Your task to perform on an android device: Open Google Chrome Image 0: 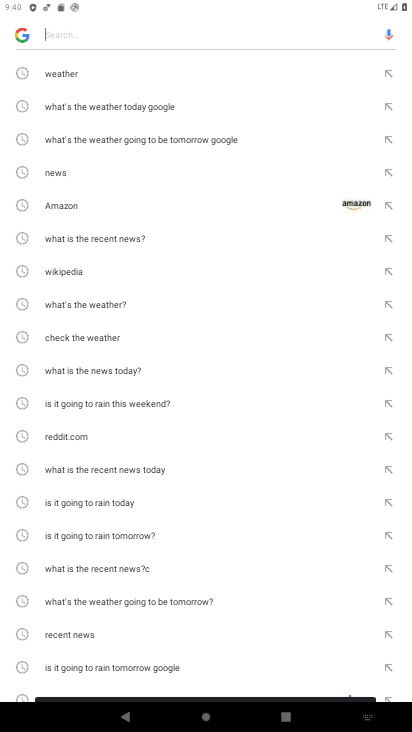
Step 0: press home button
Your task to perform on an android device: Open Google Chrome Image 1: 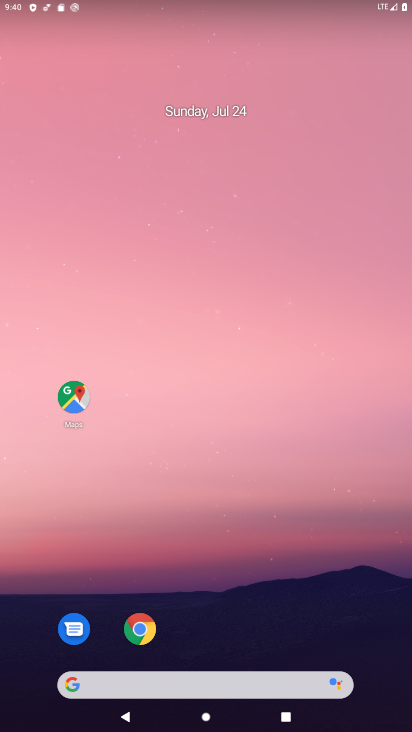
Step 1: click (146, 628)
Your task to perform on an android device: Open Google Chrome Image 2: 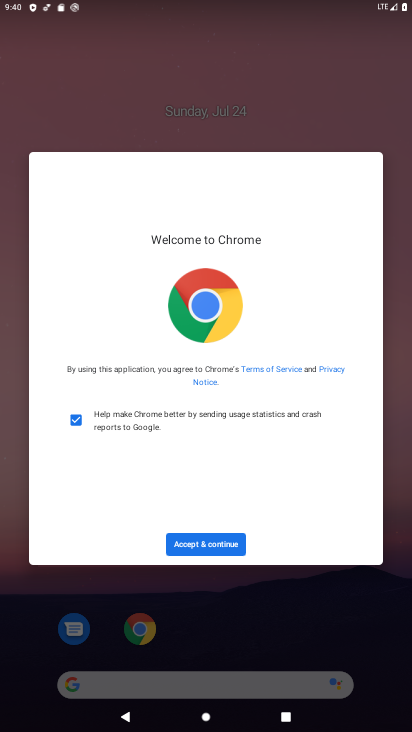
Step 2: click (201, 543)
Your task to perform on an android device: Open Google Chrome Image 3: 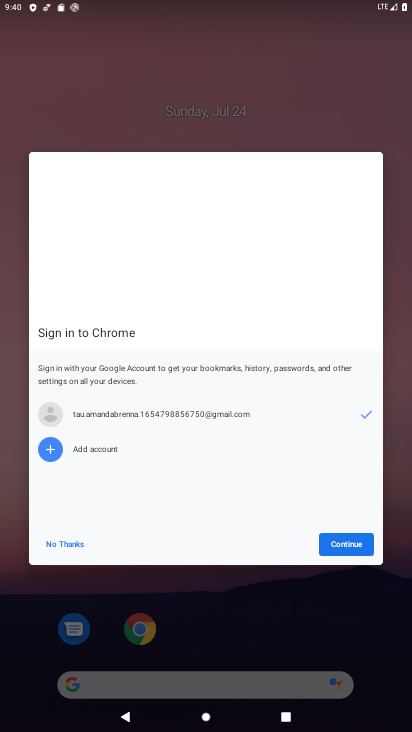
Step 3: click (359, 546)
Your task to perform on an android device: Open Google Chrome Image 4: 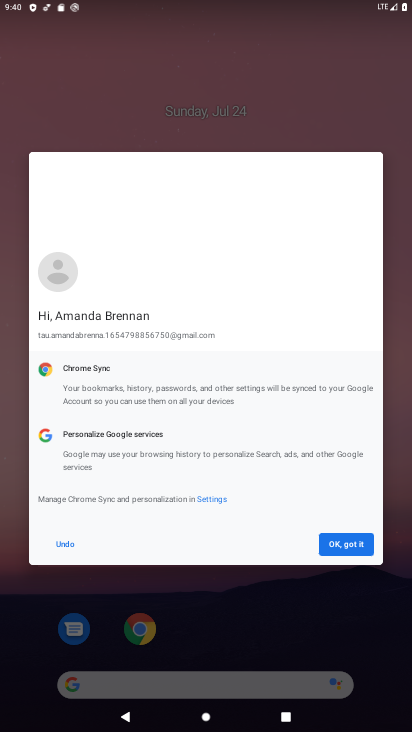
Step 4: click (359, 546)
Your task to perform on an android device: Open Google Chrome Image 5: 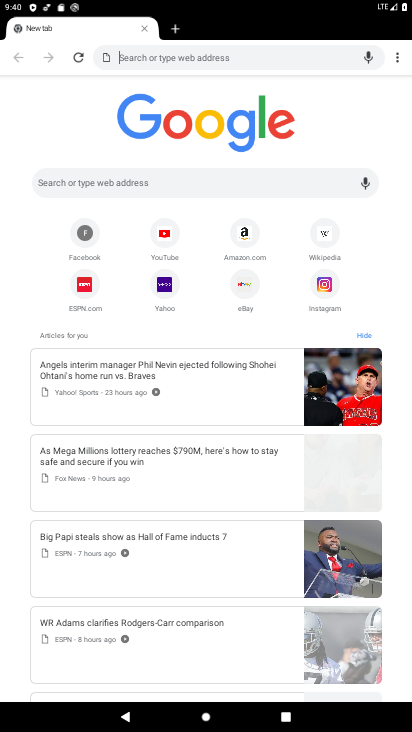
Step 5: task complete